Your task to perform on an android device: Open settings on Google Maps Image 0: 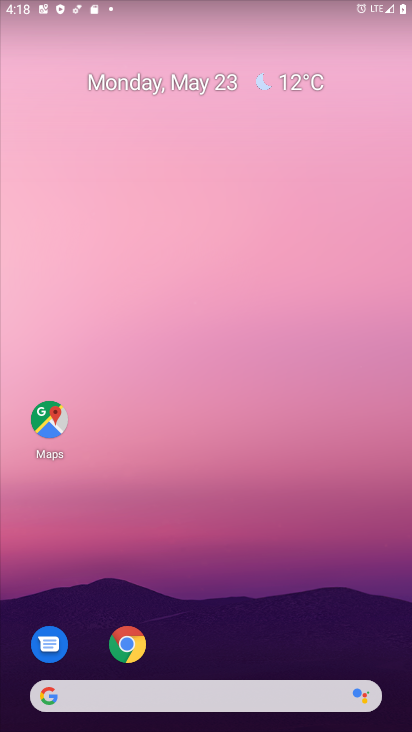
Step 0: click (48, 423)
Your task to perform on an android device: Open settings on Google Maps Image 1: 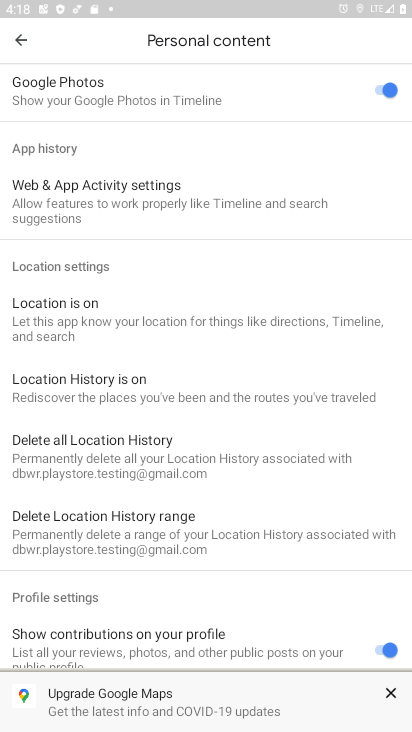
Step 1: click (24, 35)
Your task to perform on an android device: Open settings on Google Maps Image 2: 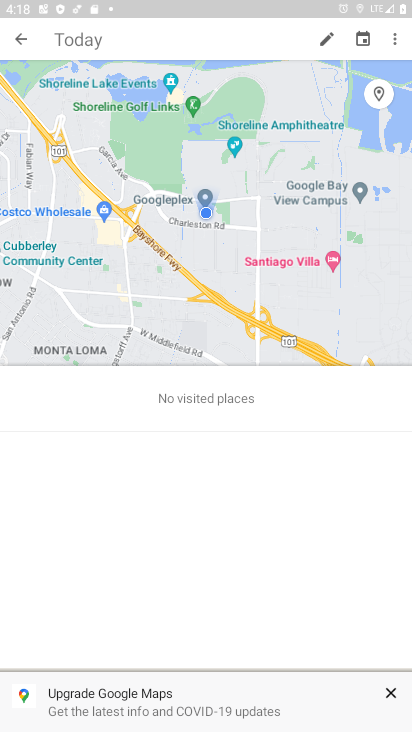
Step 2: task complete